Your task to perform on an android device: What is the recent news? Image 0: 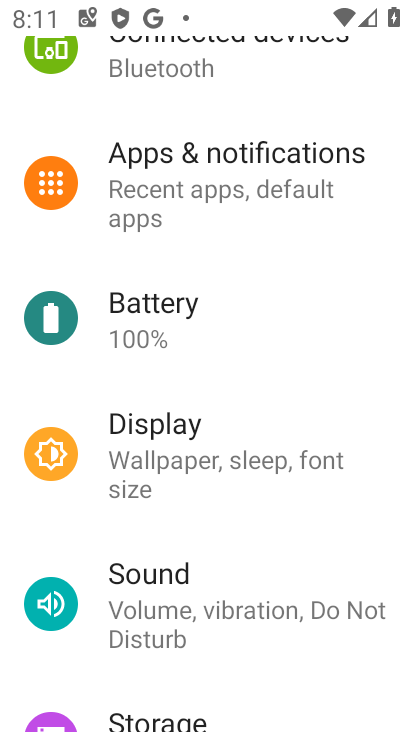
Step 0: press home button
Your task to perform on an android device: What is the recent news? Image 1: 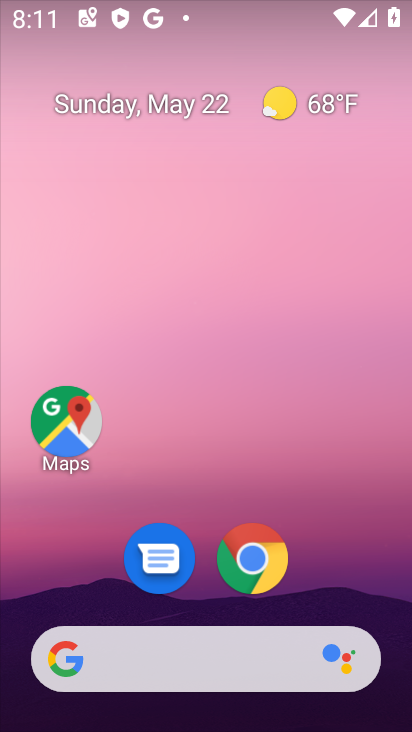
Step 1: click (238, 549)
Your task to perform on an android device: What is the recent news? Image 2: 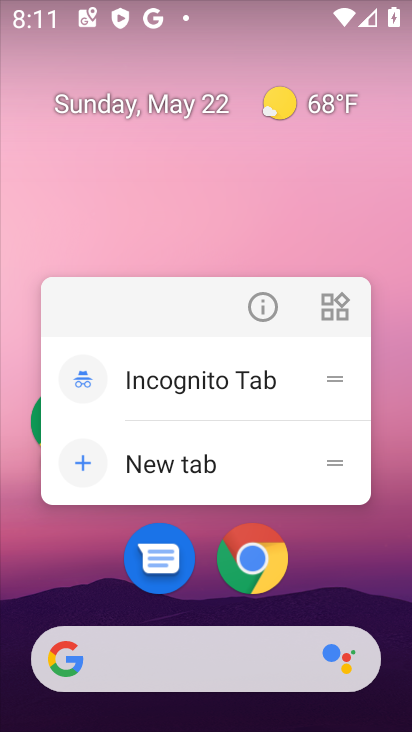
Step 2: click (238, 549)
Your task to perform on an android device: What is the recent news? Image 3: 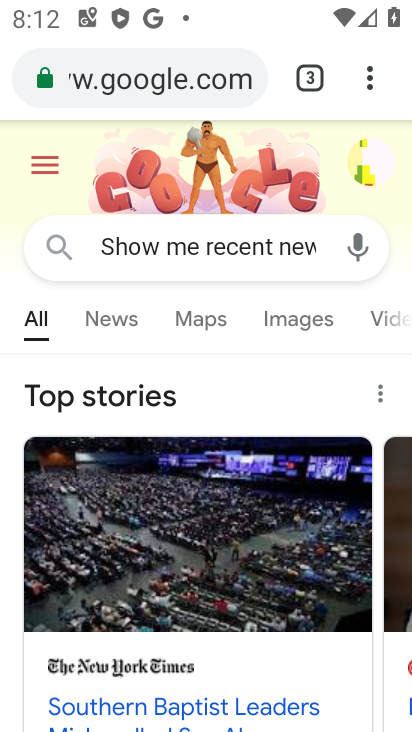
Step 3: task complete